Your task to perform on an android device: Play the last video I watched on Youtube Image 0: 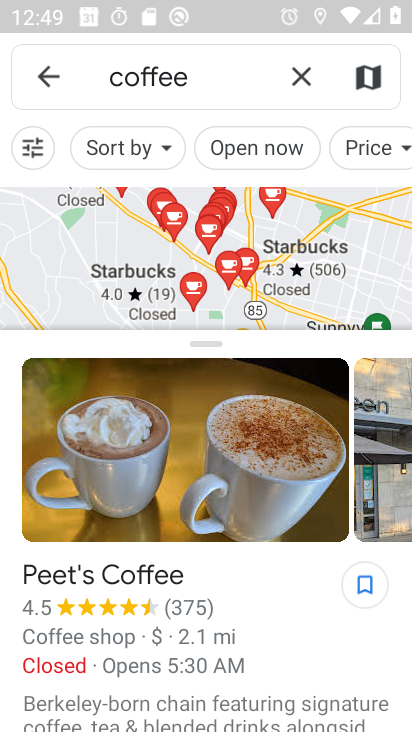
Step 0: press home button
Your task to perform on an android device: Play the last video I watched on Youtube Image 1: 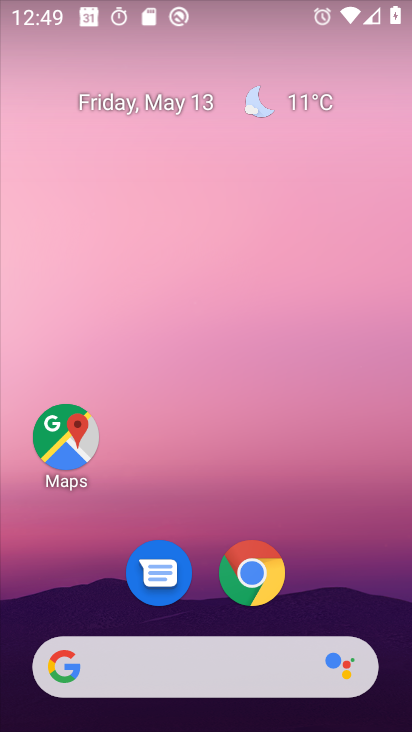
Step 1: drag from (388, 617) to (327, 297)
Your task to perform on an android device: Play the last video I watched on Youtube Image 2: 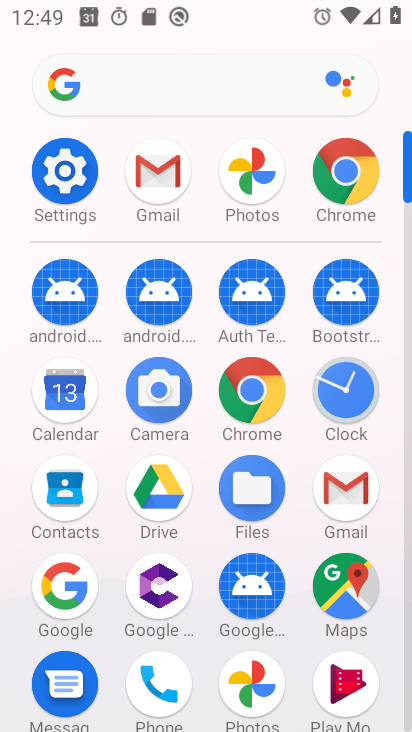
Step 2: click (409, 122)
Your task to perform on an android device: Play the last video I watched on Youtube Image 3: 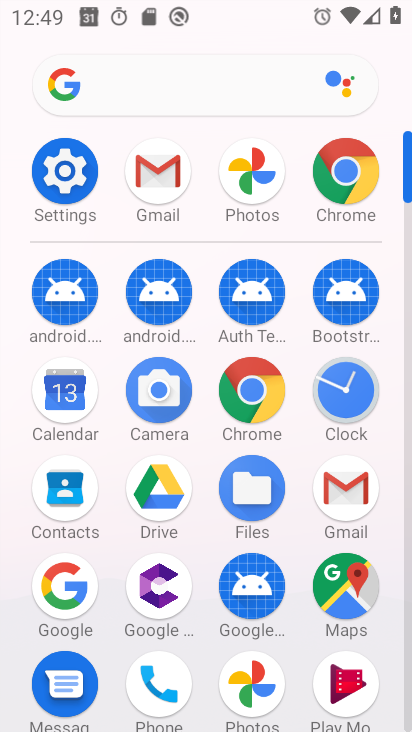
Step 3: drag from (410, 167) to (411, 103)
Your task to perform on an android device: Play the last video I watched on Youtube Image 4: 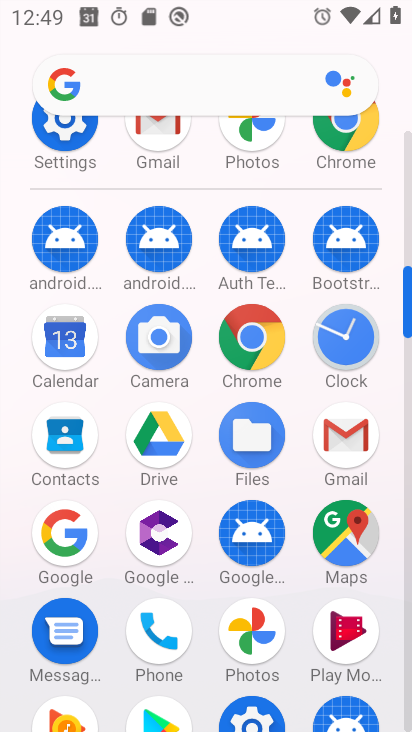
Step 4: drag from (410, 278) to (411, 156)
Your task to perform on an android device: Play the last video I watched on Youtube Image 5: 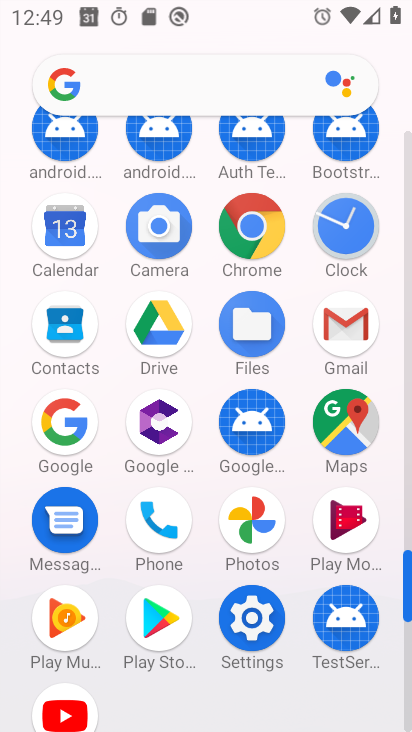
Step 5: click (58, 714)
Your task to perform on an android device: Play the last video I watched on Youtube Image 6: 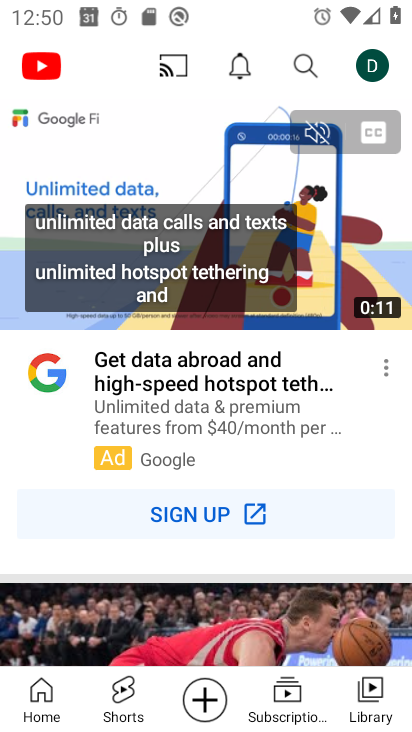
Step 6: click (367, 702)
Your task to perform on an android device: Play the last video I watched on Youtube Image 7: 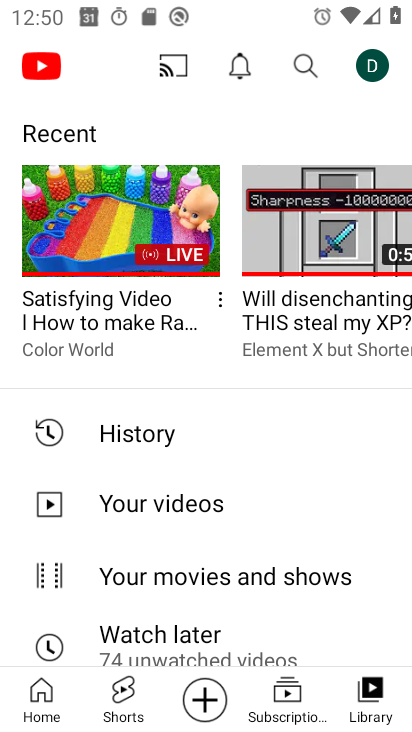
Step 7: click (126, 428)
Your task to perform on an android device: Play the last video I watched on Youtube Image 8: 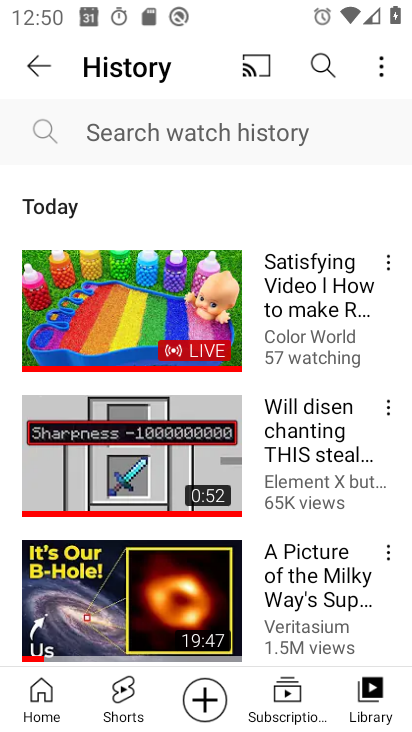
Step 8: click (119, 276)
Your task to perform on an android device: Play the last video I watched on Youtube Image 9: 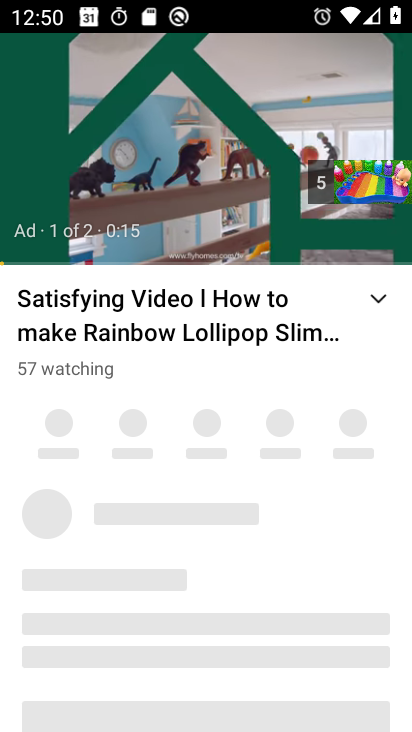
Step 9: task complete